Your task to perform on an android device: open app "Instagram" (install if not already installed), go to login, and select forgot password Image 0: 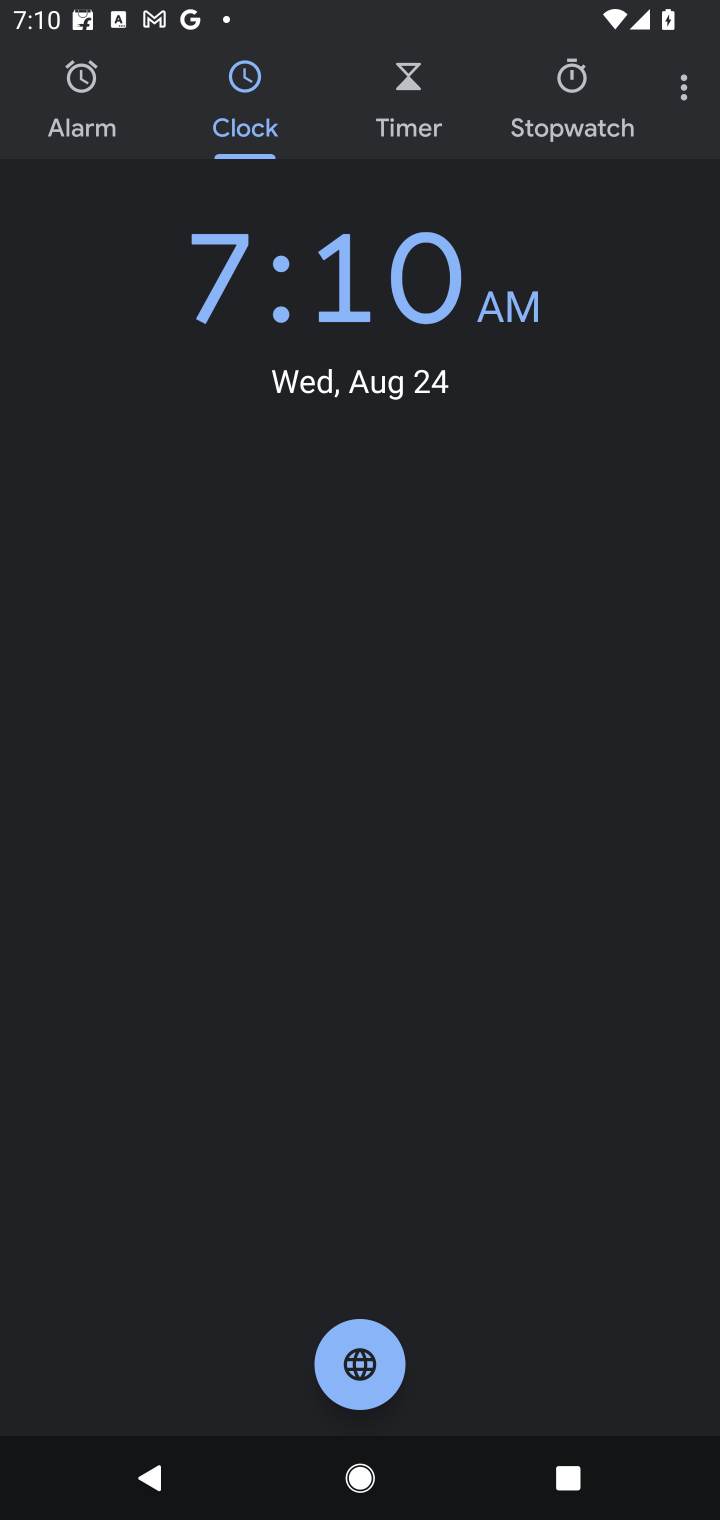
Step 0: press home button
Your task to perform on an android device: open app "Instagram" (install if not already installed), go to login, and select forgot password Image 1: 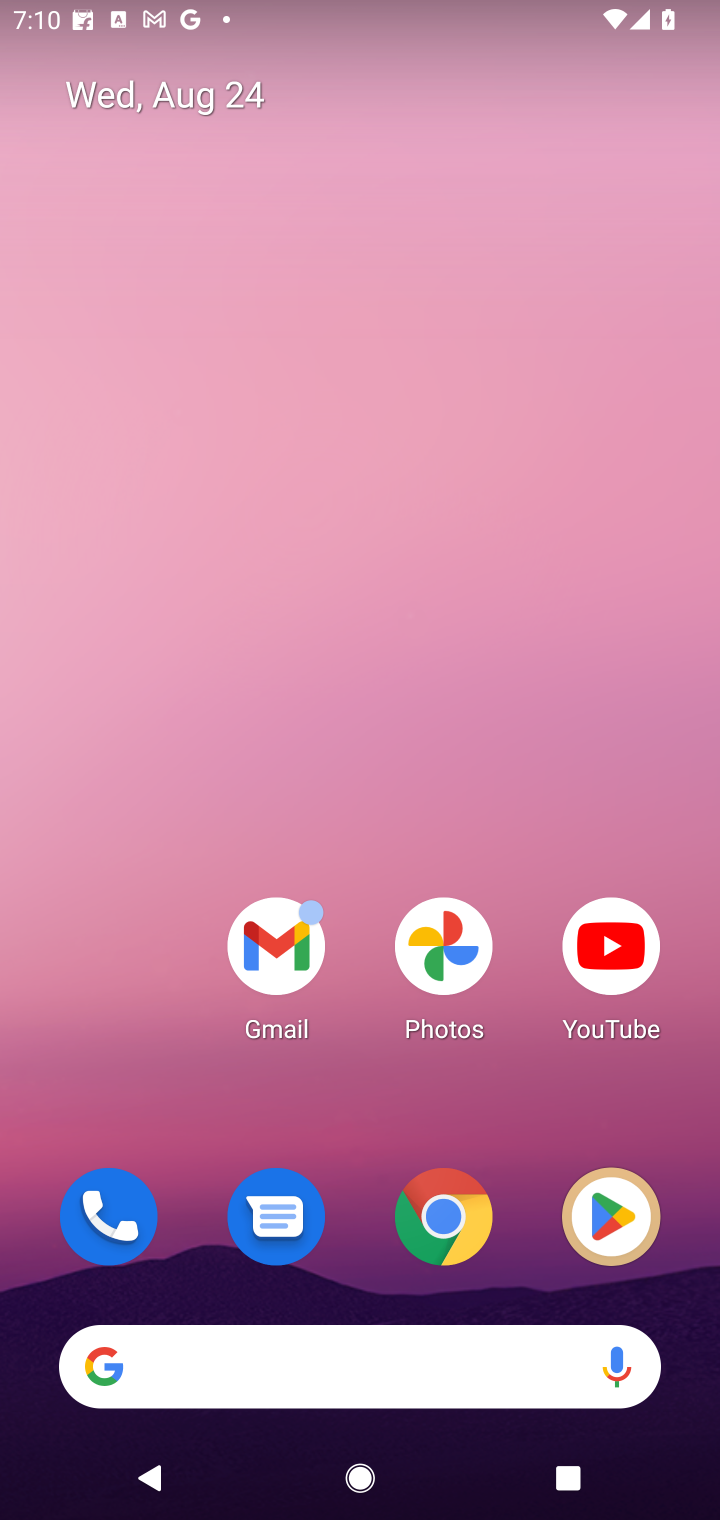
Step 1: click (563, 1203)
Your task to perform on an android device: open app "Instagram" (install if not already installed), go to login, and select forgot password Image 2: 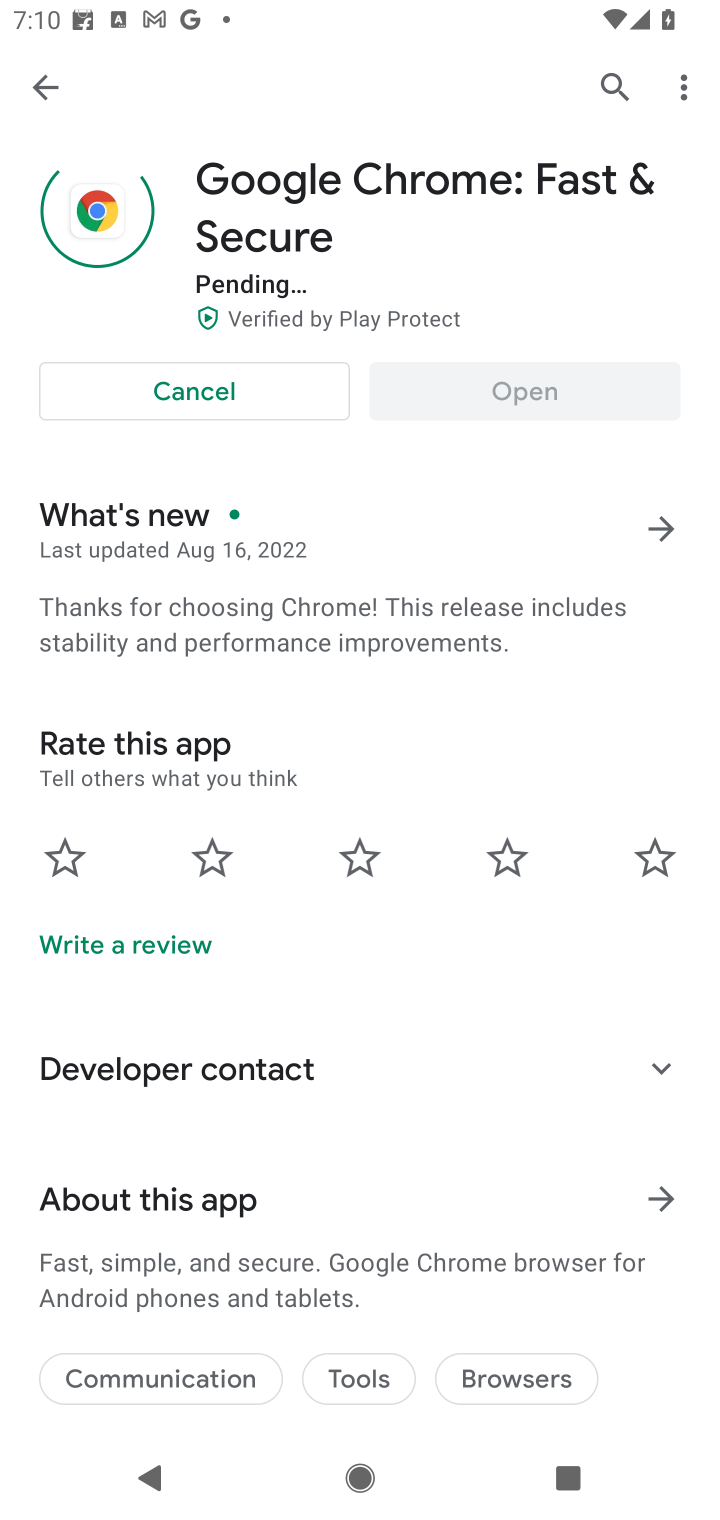
Step 2: click (605, 101)
Your task to perform on an android device: open app "Instagram" (install if not already installed), go to login, and select forgot password Image 3: 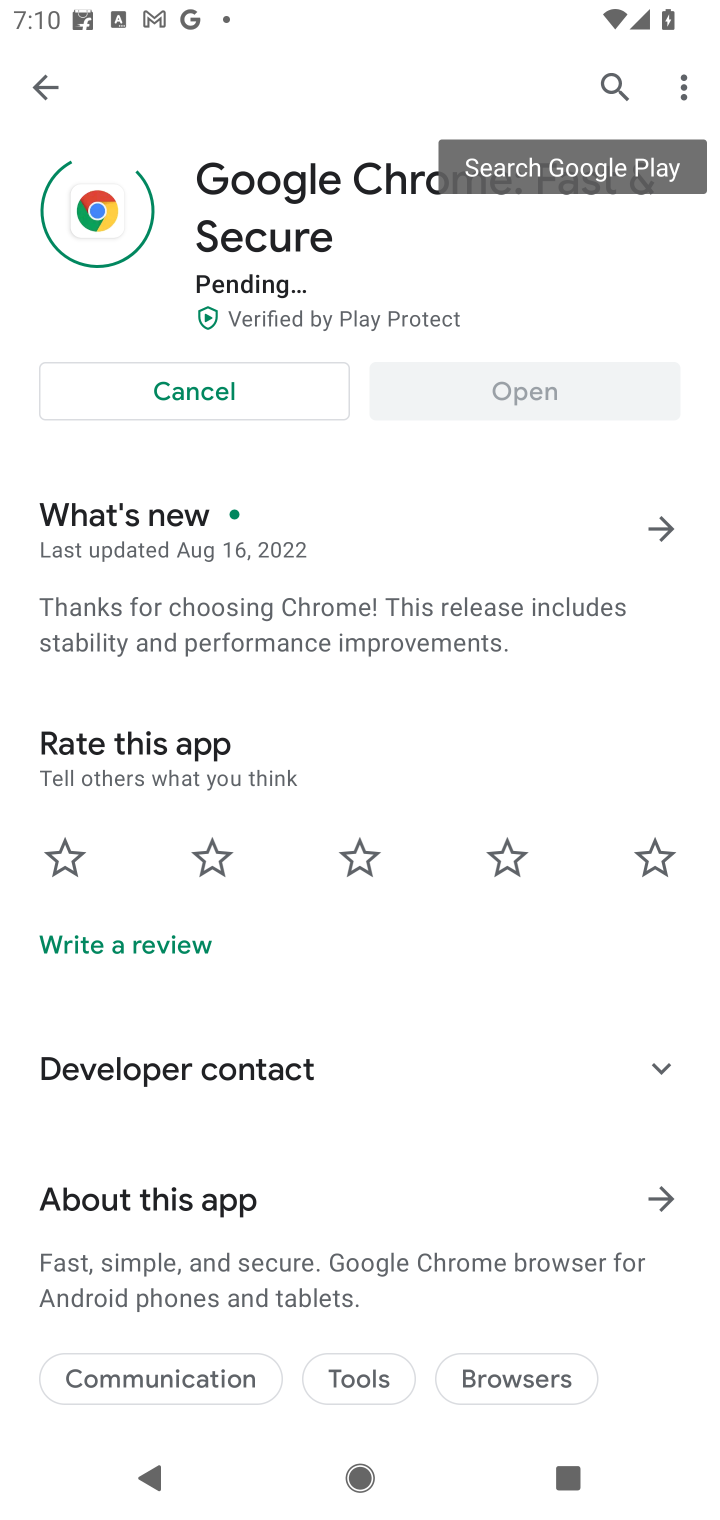
Step 3: click (608, 67)
Your task to perform on an android device: open app "Instagram" (install if not already installed), go to login, and select forgot password Image 4: 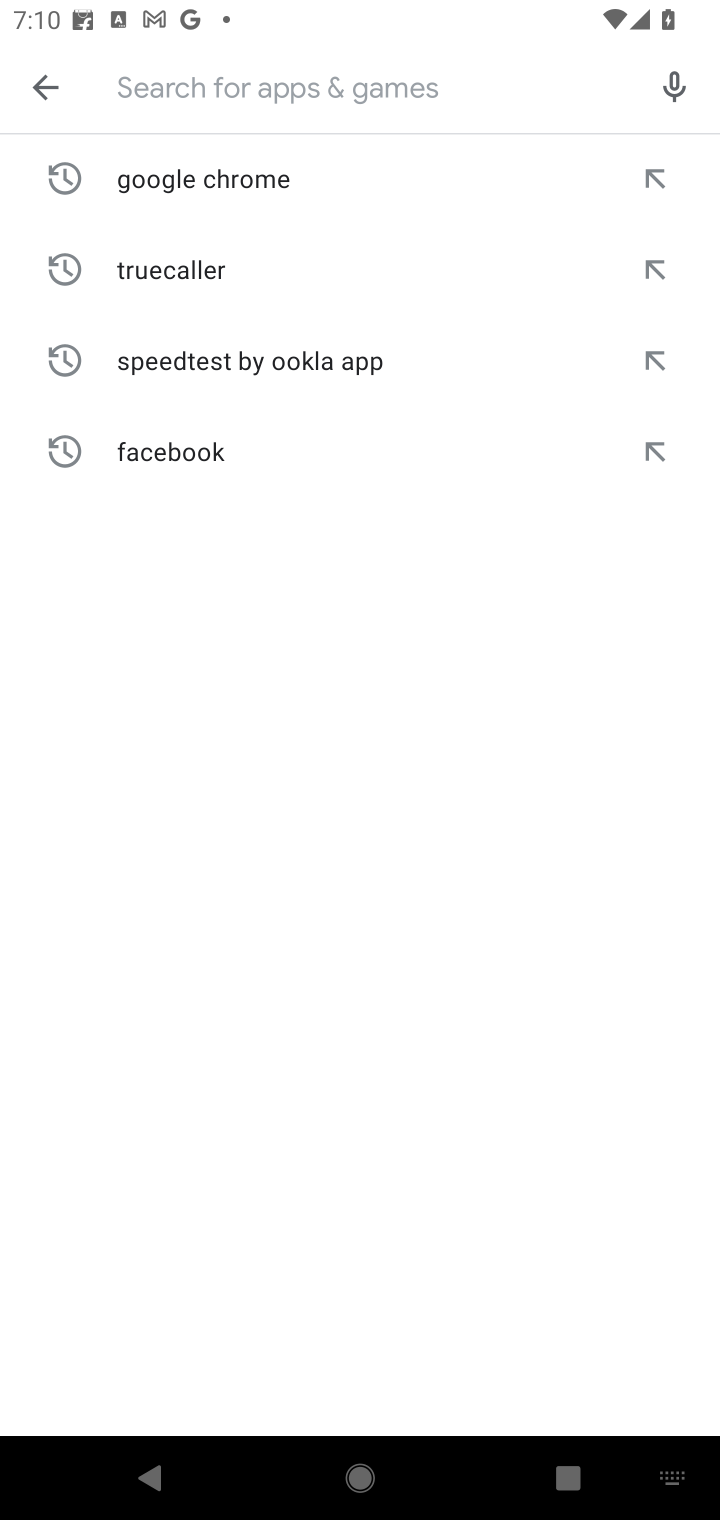
Step 4: type "Instagram"
Your task to perform on an android device: open app "Instagram" (install if not already installed), go to login, and select forgot password Image 5: 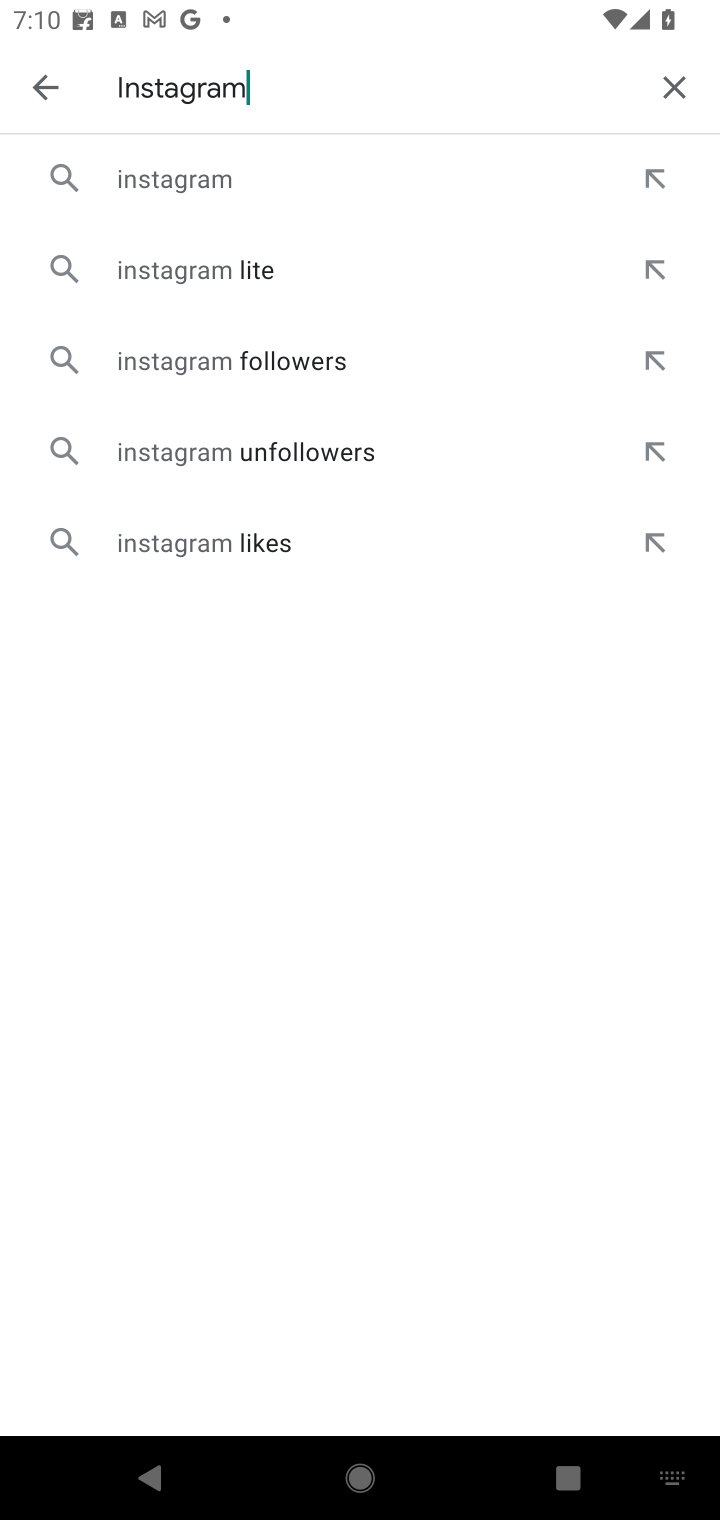
Step 5: click (203, 195)
Your task to perform on an android device: open app "Instagram" (install if not already installed), go to login, and select forgot password Image 6: 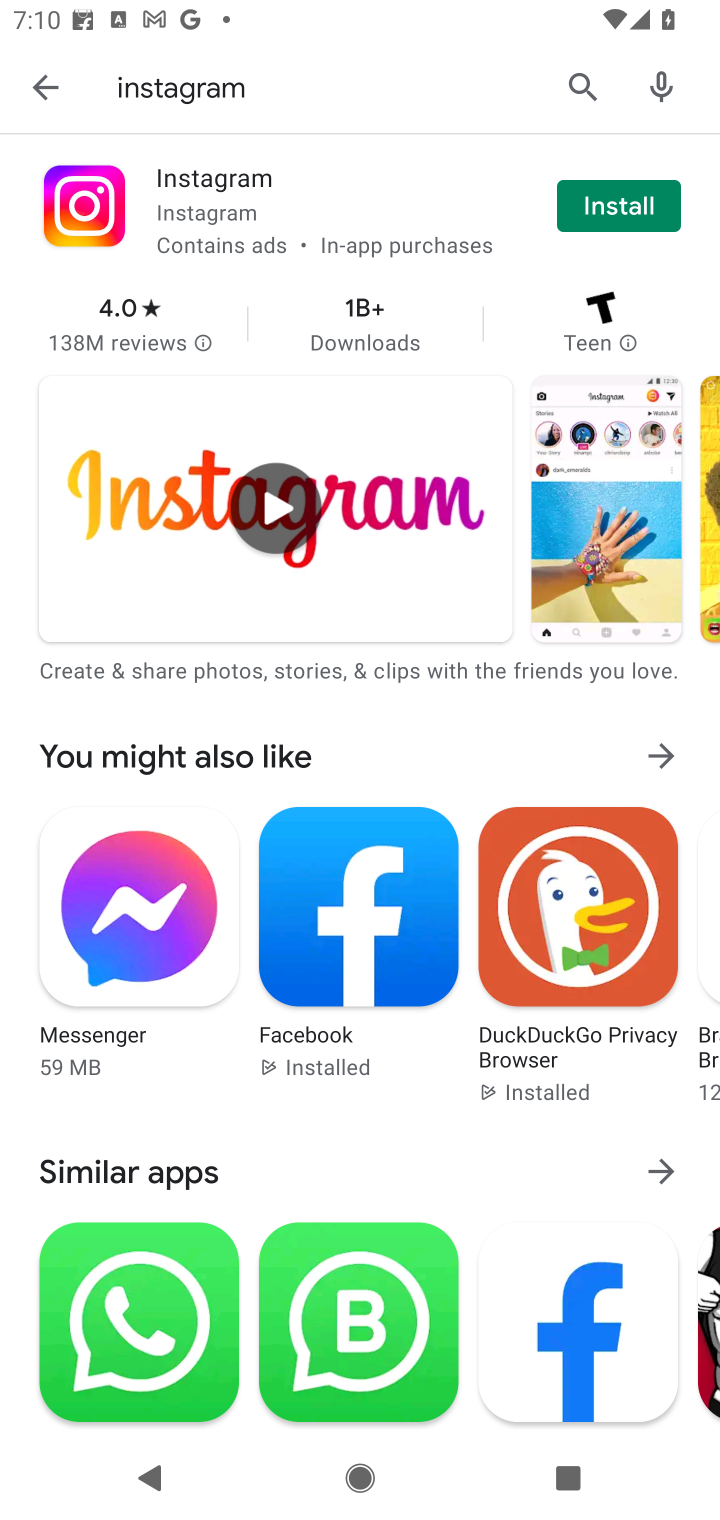
Step 6: click (578, 201)
Your task to perform on an android device: open app "Instagram" (install if not already installed), go to login, and select forgot password Image 7: 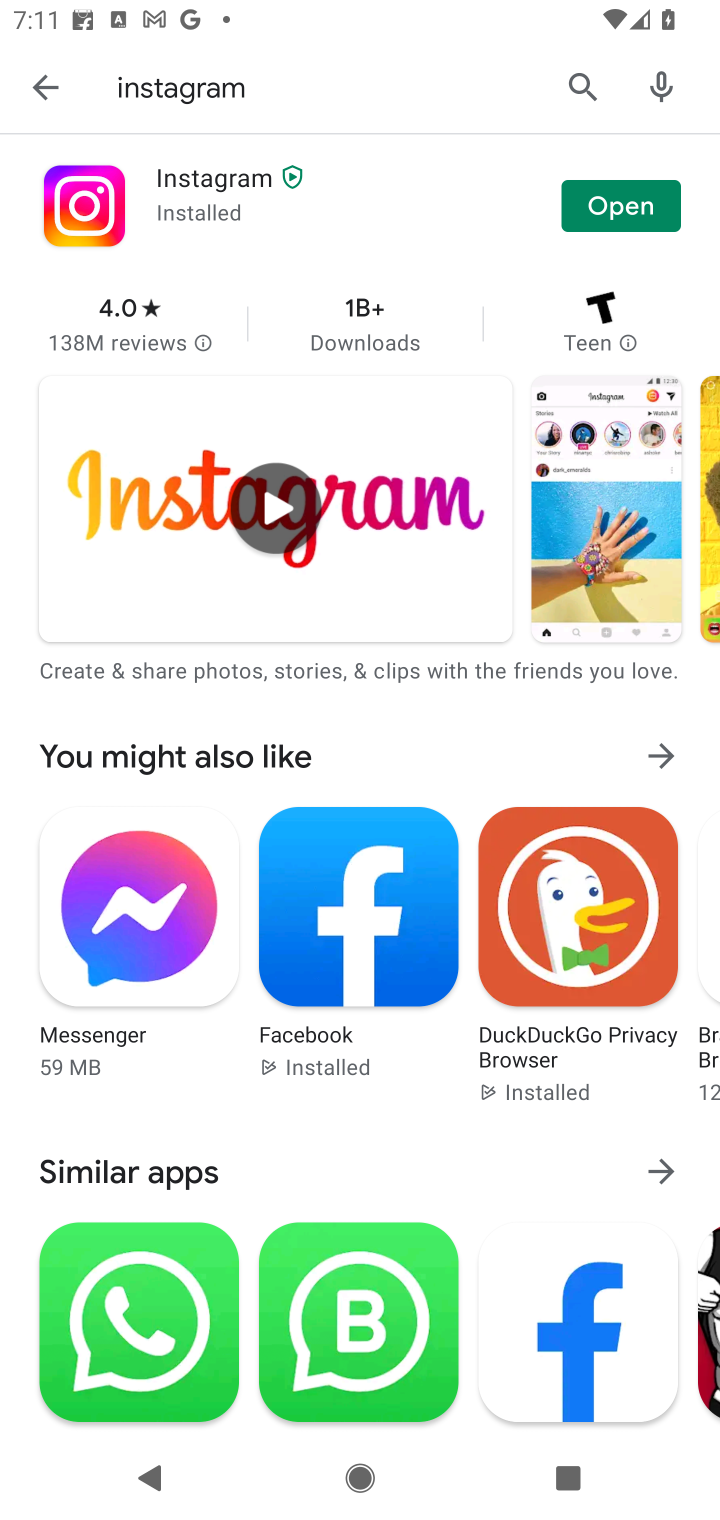
Step 7: click (638, 185)
Your task to perform on an android device: open app "Instagram" (install if not already installed), go to login, and select forgot password Image 8: 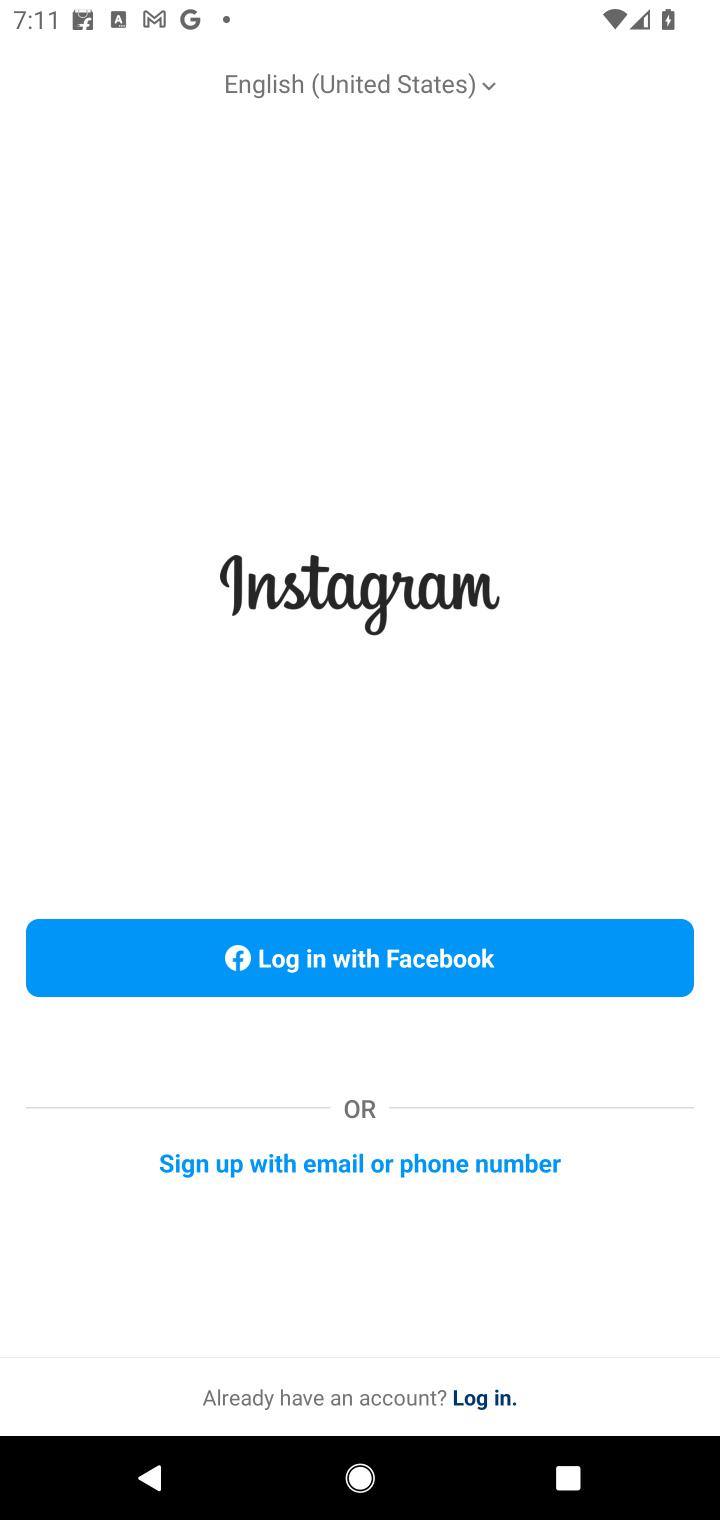
Step 8: task complete